Your task to perform on an android device: Show me popular videos on Youtube Image 0: 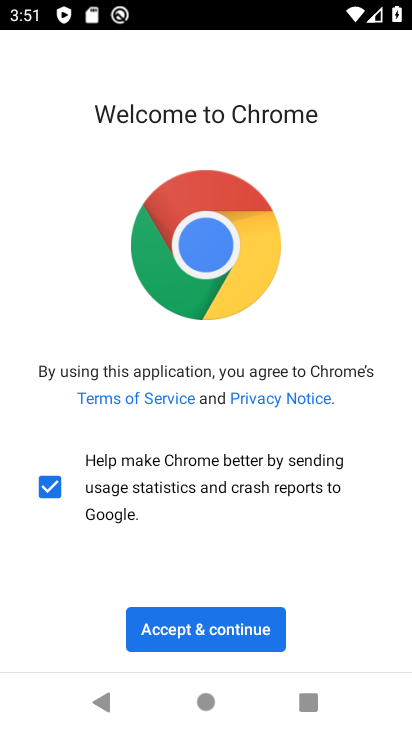
Step 0: press home button
Your task to perform on an android device: Show me popular videos on Youtube Image 1: 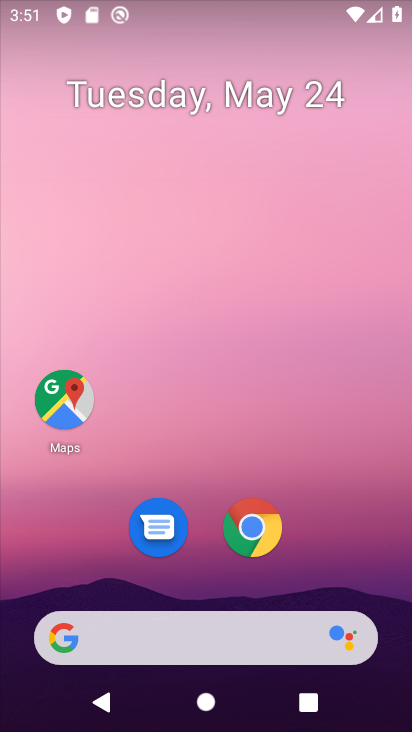
Step 1: click (186, 170)
Your task to perform on an android device: Show me popular videos on Youtube Image 2: 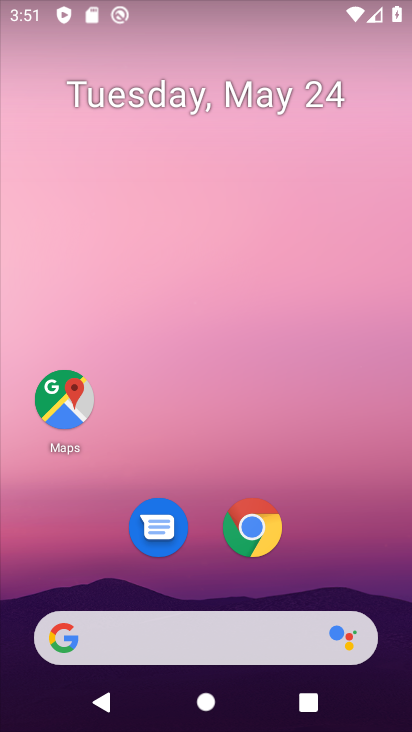
Step 2: drag from (210, 465) to (219, 211)
Your task to perform on an android device: Show me popular videos on Youtube Image 3: 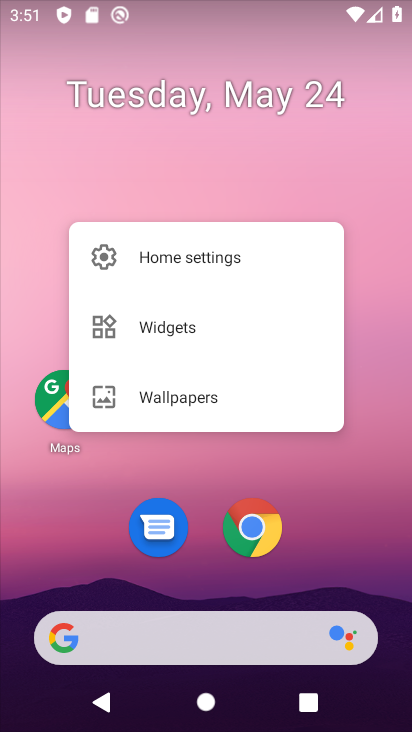
Step 3: click (183, 103)
Your task to perform on an android device: Show me popular videos on Youtube Image 4: 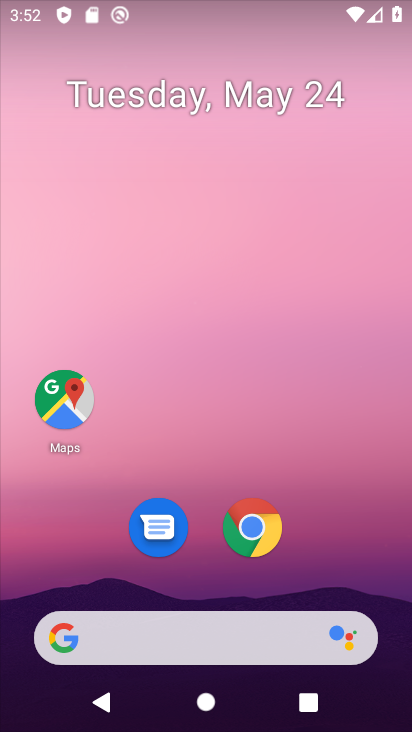
Step 4: drag from (258, 637) to (195, 129)
Your task to perform on an android device: Show me popular videos on Youtube Image 5: 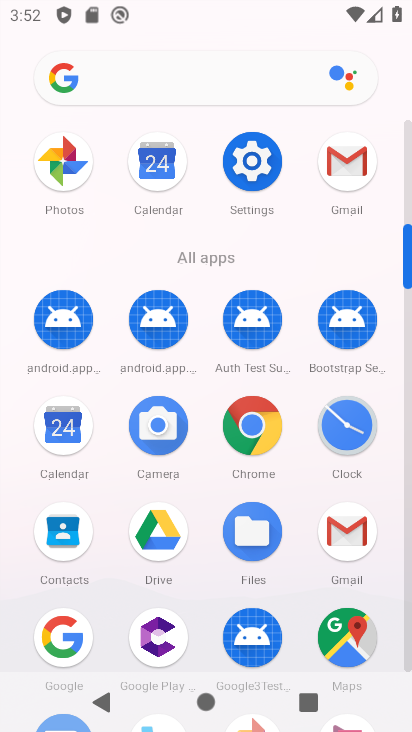
Step 5: drag from (193, 478) to (173, 107)
Your task to perform on an android device: Show me popular videos on Youtube Image 6: 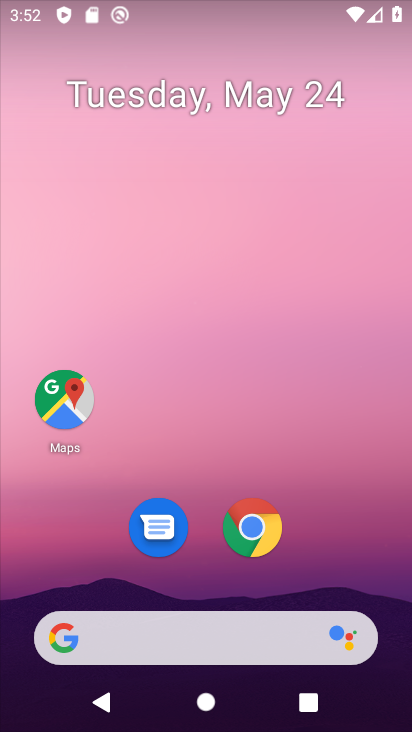
Step 6: drag from (261, 662) to (142, 31)
Your task to perform on an android device: Show me popular videos on Youtube Image 7: 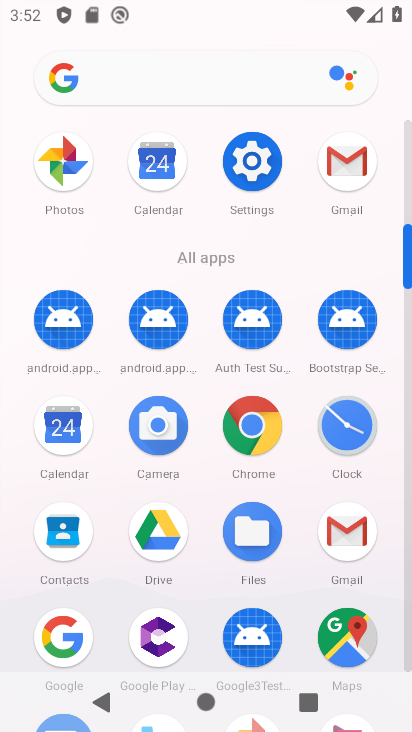
Step 7: drag from (293, 551) to (290, 318)
Your task to perform on an android device: Show me popular videos on Youtube Image 8: 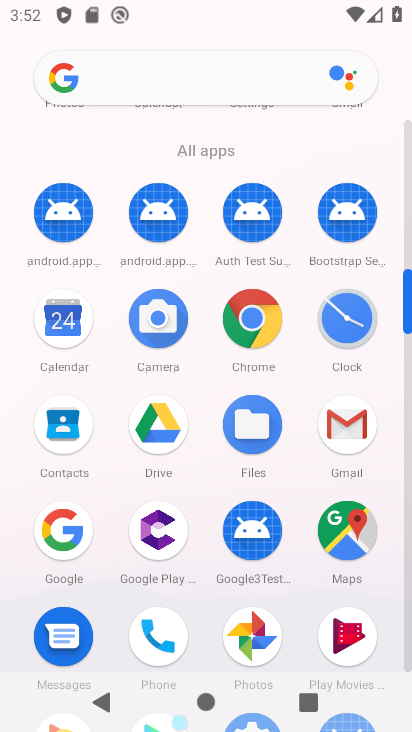
Step 8: drag from (196, 597) to (211, 353)
Your task to perform on an android device: Show me popular videos on Youtube Image 9: 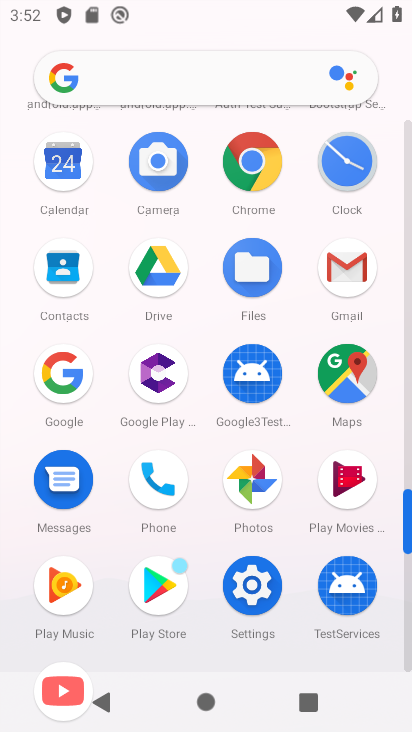
Step 9: click (59, 654)
Your task to perform on an android device: Show me popular videos on Youtube Image 10: 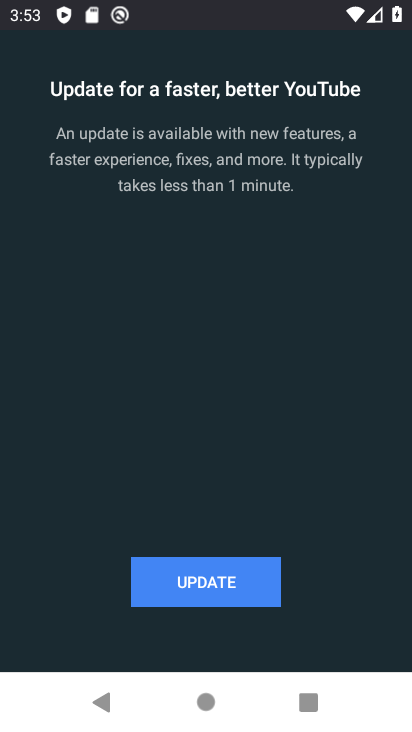
Step 10: click (205, 587)
Your task to perform on an android device: Show me popular videos on Youtube Image 11: 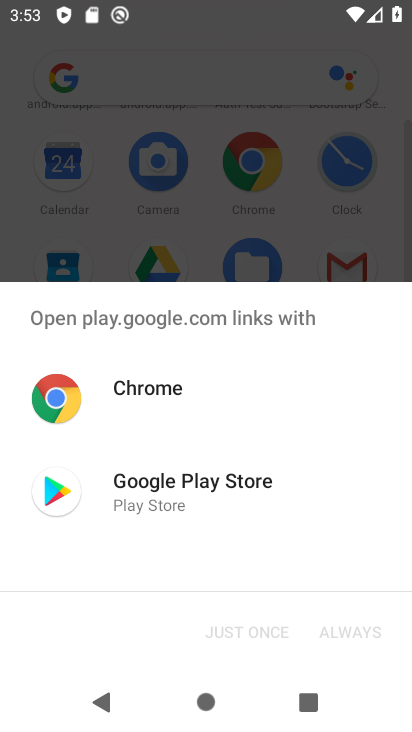
Step 11: click (128, 480)
Your task to perform on an android device: Show me popular videos on Youtube Image 12: 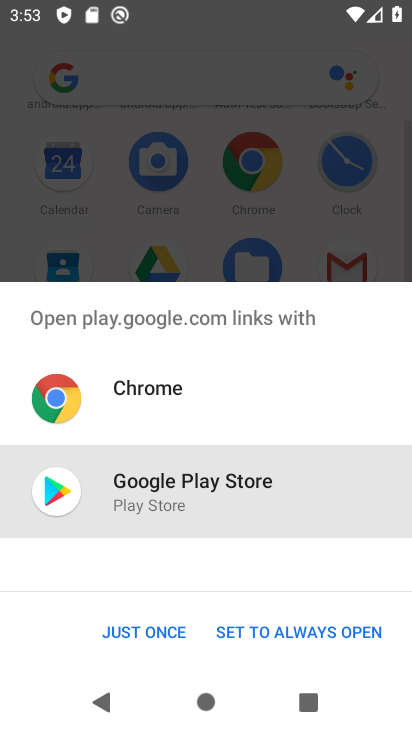
Step 12: click (149, 621)
Your task to perform on an android device: Show me popular videos on Youtube Image 13: 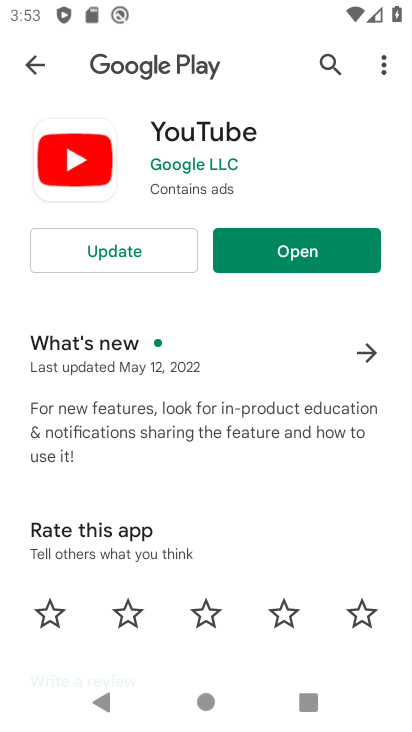
Step 13: click (61, 257)
Your task to perform on an android device: Show me popular videos on Youtube Image 14: 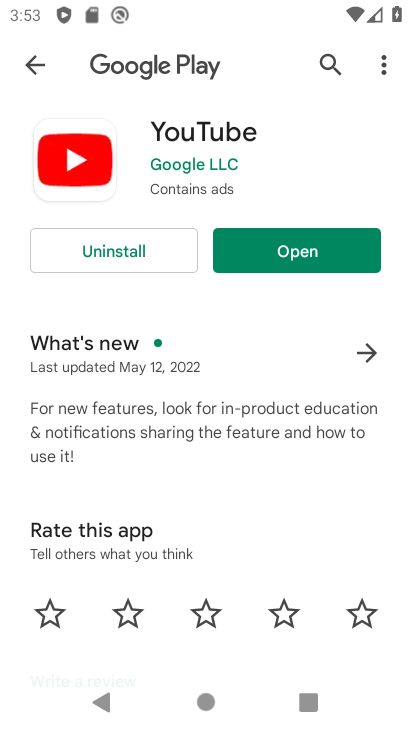
Step 14: click (261, 259)
Your task to perform on an android device: Show me popular videos on Youtube Image 15: 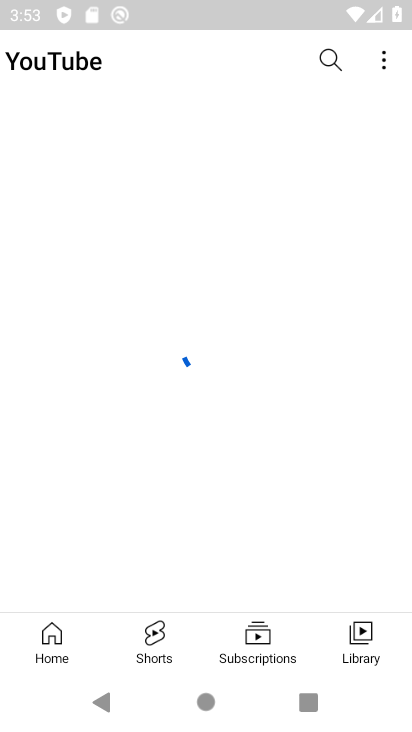
Step 15: click (336, 46)
Your task to perform on an android device: Show me popular videos on Youtube Image 16: 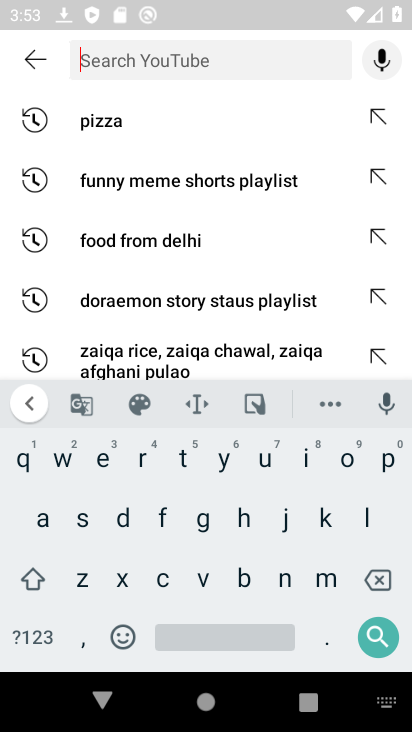
Step 16: click (213, 56)
Your task to perform on an android device: Show me popular videos on Youtube Image 17: 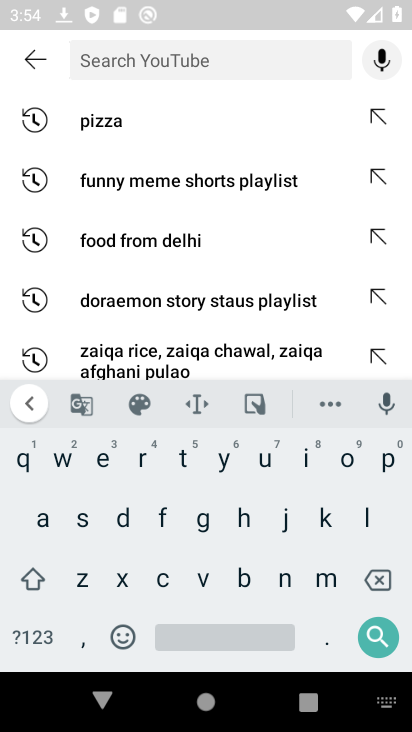
Step 17: click (380, 461)
Your task to perform on an android device: Show me popular videos on Youtube Image 18: 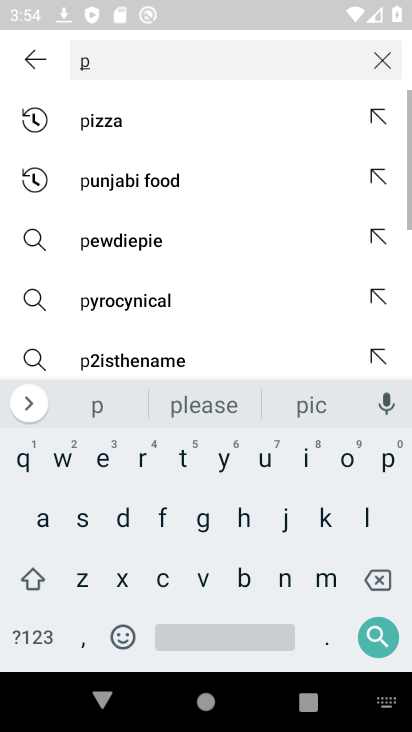
Step 18: click (344, 460)
Your task to perform on an android device: Show me popular videos on Youtube Image 19: 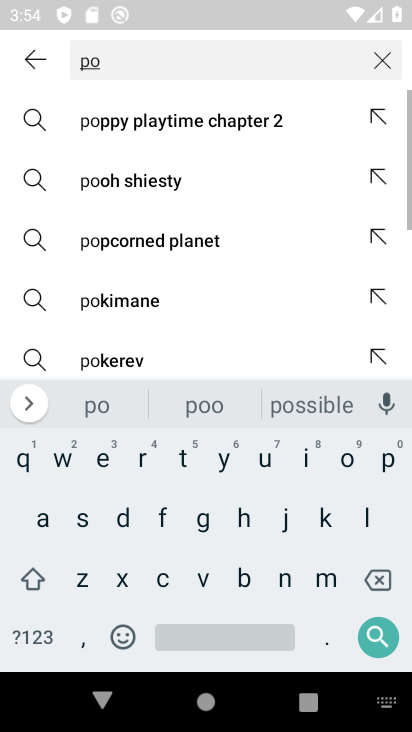
Step 19: click (393, 465)
Your task to perform on an android device: Show me popular videos on Youtube Image 20: 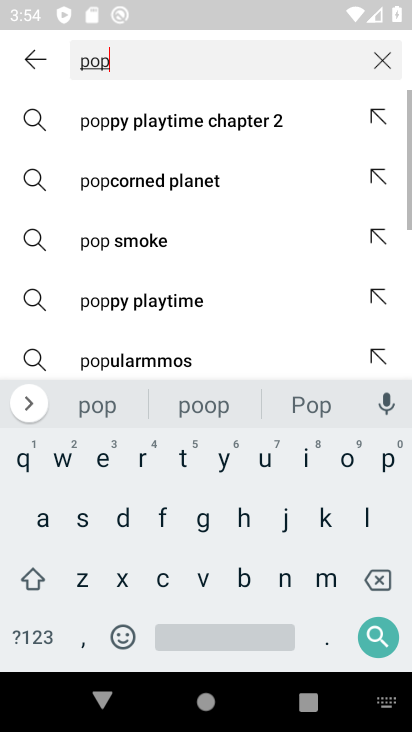
Step 20: click (264, 458)
Your task to perform on an android device: Show me popular videos on Youtube Image 21: 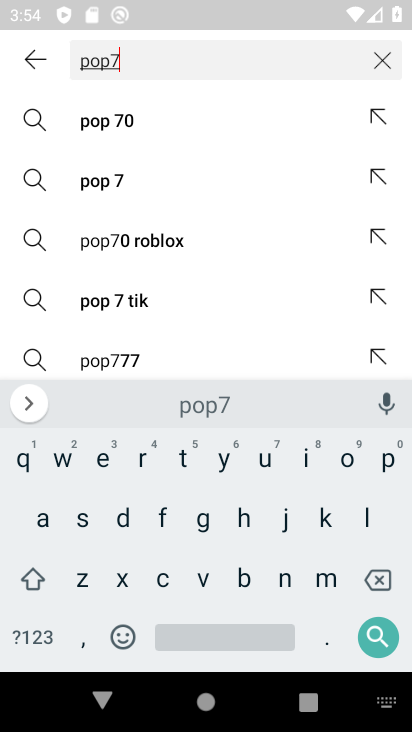
Step 21: click (372, 577)
Your task to perform on an android device: Show me popular videos on Youtube Image 22: 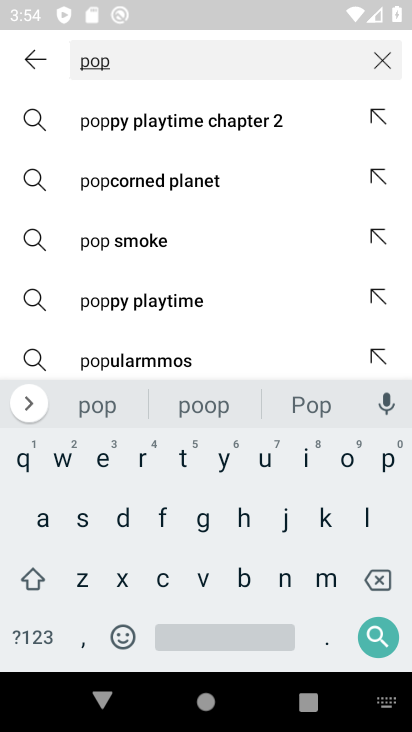
Step 22: click (269, 458)
Your task to perform on an android device: Show me popular videos on Youtube Image 23: 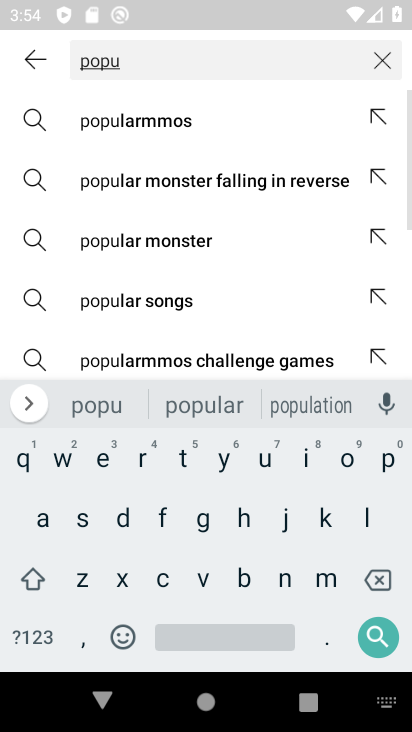
Step 23: click (227, 408)
Your task to perform on an android device: Show me popular videos on Youtube Image 24: 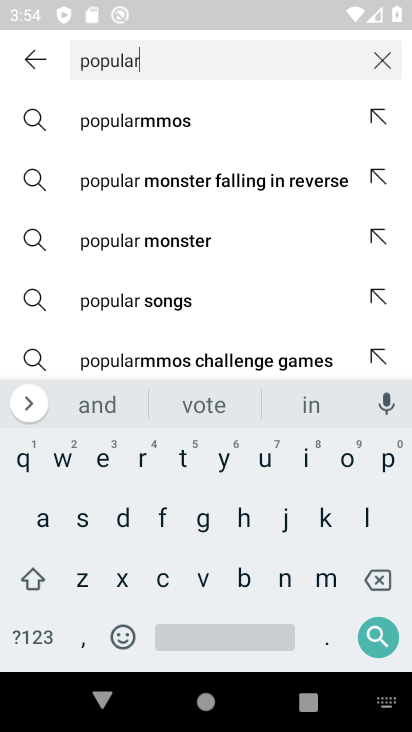
Step 24: click (206, 573)
Your task to perform on an android device: Show me popular videos on Youtube Image 25: 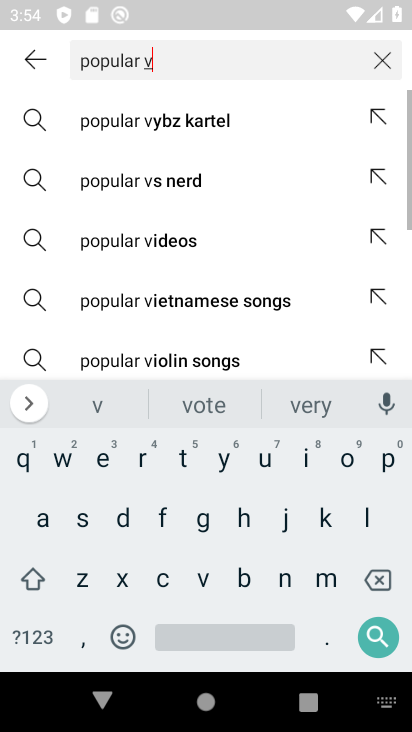
Step 25: click (307, 454)
Your task to perform on an android device: Show me popular videos on Youtube Image 26: 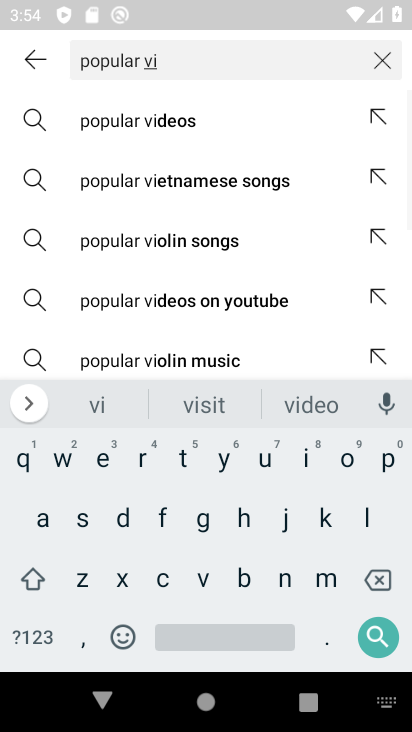
Step 26: click (190, 124)
Your task to perform on an android device: Show me popular videos on Youtube Image 27: 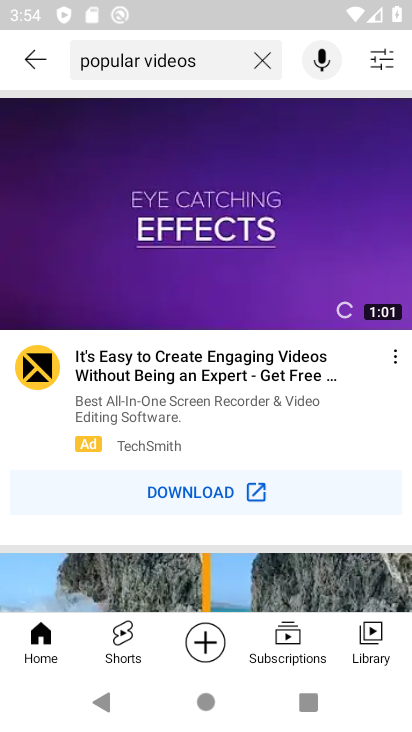
Step 27: task complete